Your task to perform on an android device: set default search engine in the chrome app Image 0: 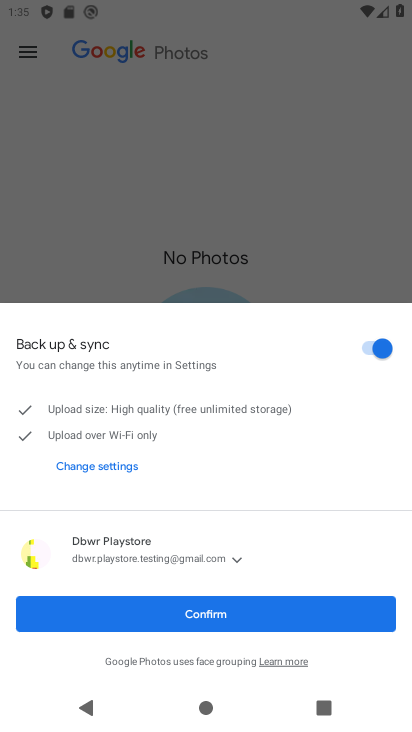
Step 0: click (171, 621)
Your task to perform on an android device: set default search engine in the chrome app Image 1: 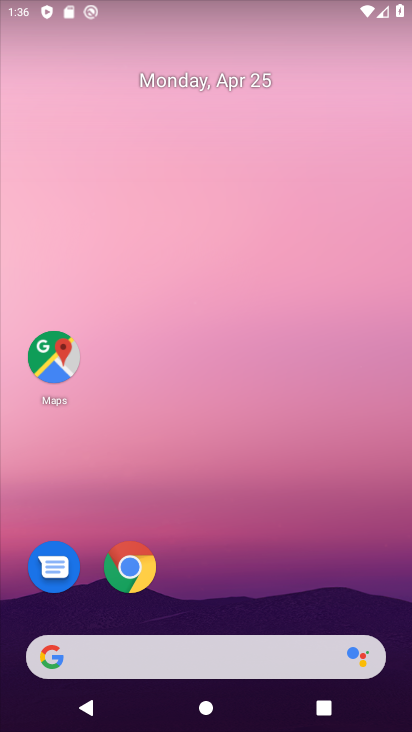
Step 1: click (127, 563)
Your task to perform on an android device: set default search engine in the chrome app Image 2: 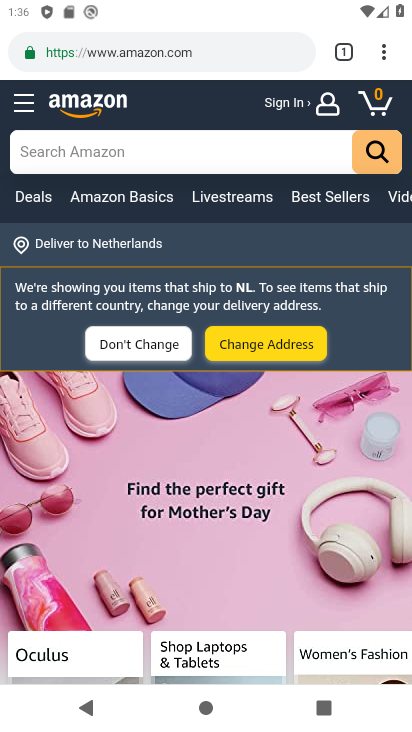
Step 2: click (380, 51)
Your task to perform on an android device: set default search engine in the chrome app Image 3: 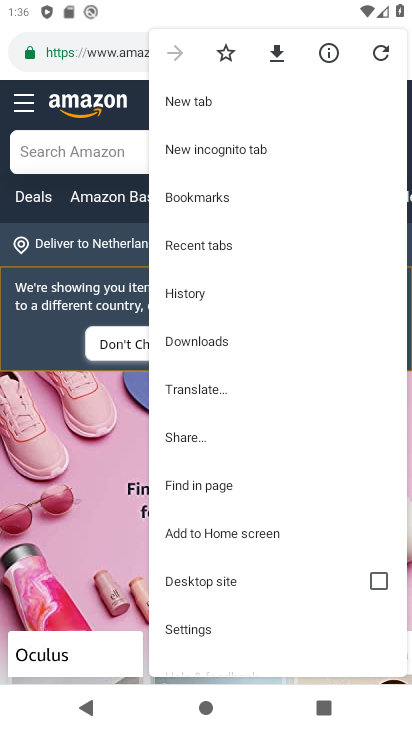
Step 3: click (175, 634)
Your task to perform on an android device: set default search engine in the chrome app Image 4: 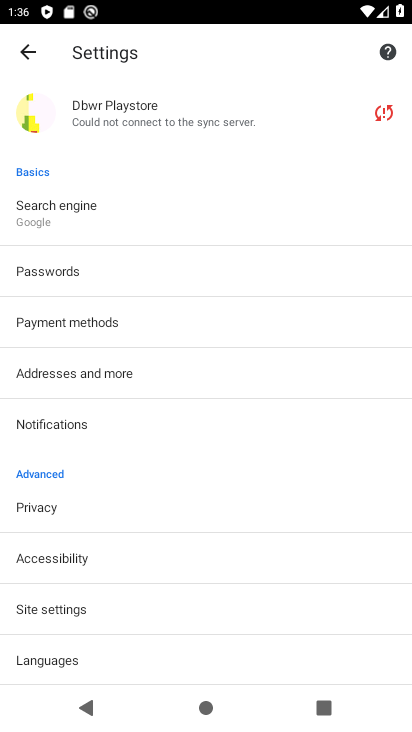
Step 4: click (47, 202)
Your task to perform on an android device: set default search engine in the chrome app Image 5: 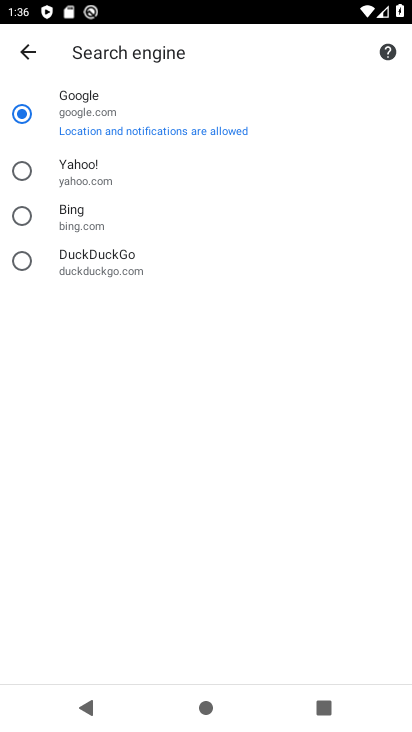
Step 5: click (13, 165)
Your task to perform on an android device: set default search engine in the chrome app Image 6: 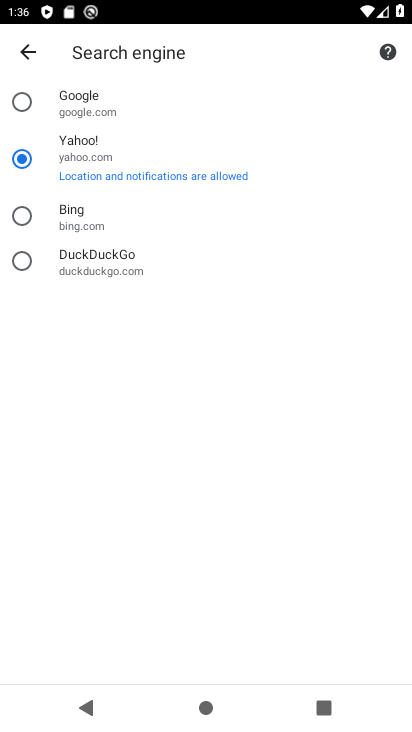
Step 6: task complete